Your task to perform on an android device: turn off sleep mode Image 0: 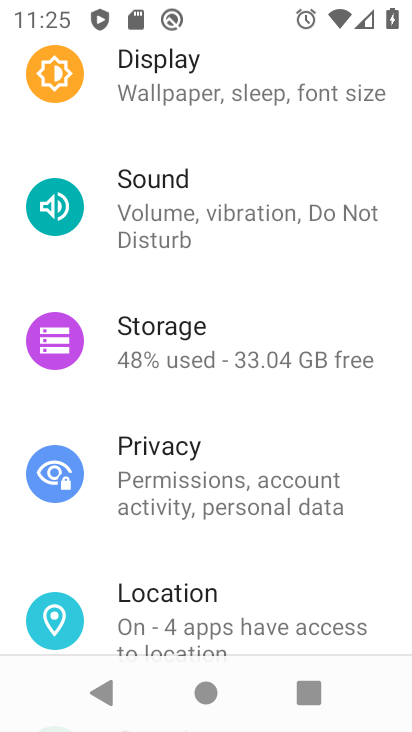
Step 0: click (227, 80)
Your task to perform on an android device: turn off sleep mode Image 1: 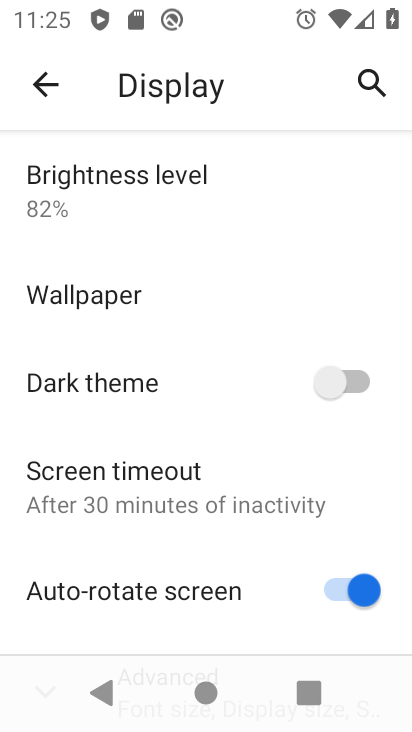
Step 1: click (147, 523)
Your task to perform on an android device: turn off sleep mode Image 2: 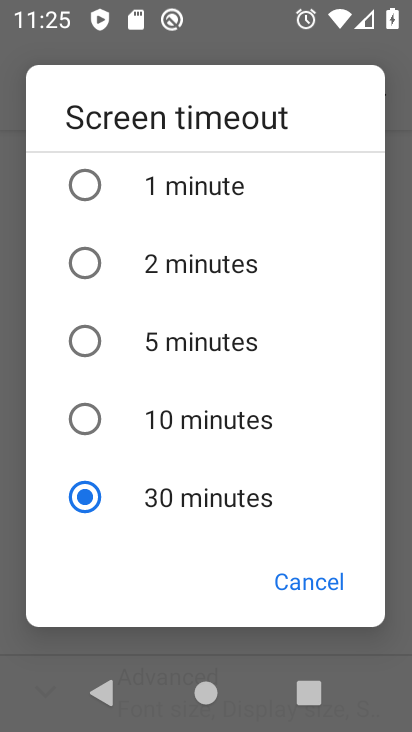
Step 2: click (198, 356)
Your task to perform on an android device: turn off sleep mode Image 3: 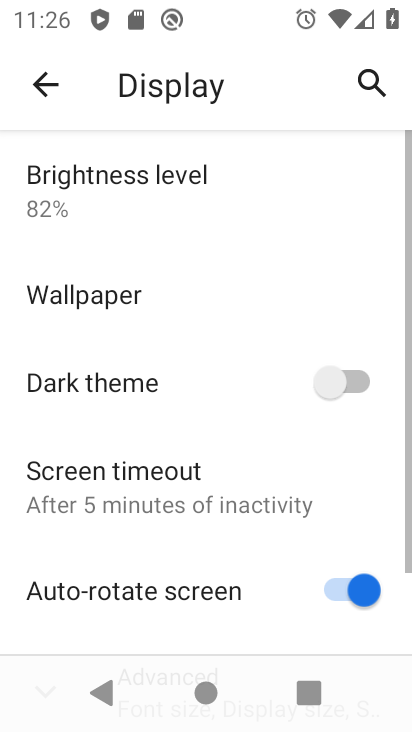
Step 3: task complete